Your task to perform on an android device: Search for sushi restaurants on Maps Image 0: 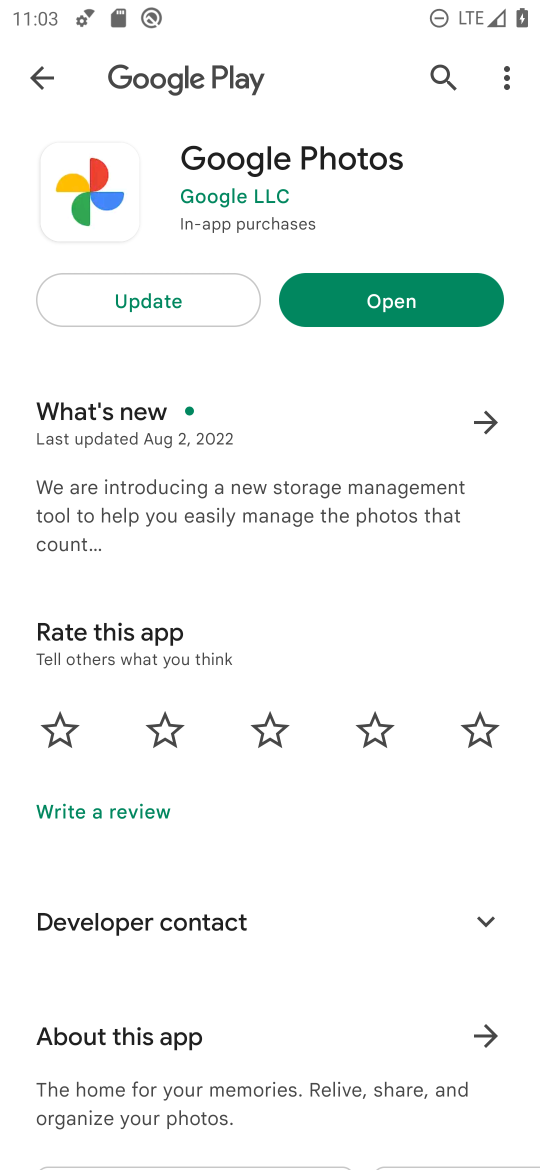
Step 0: press home button
Your task to perform on an android device: Search for sushi restaurants on Maps Image 1: 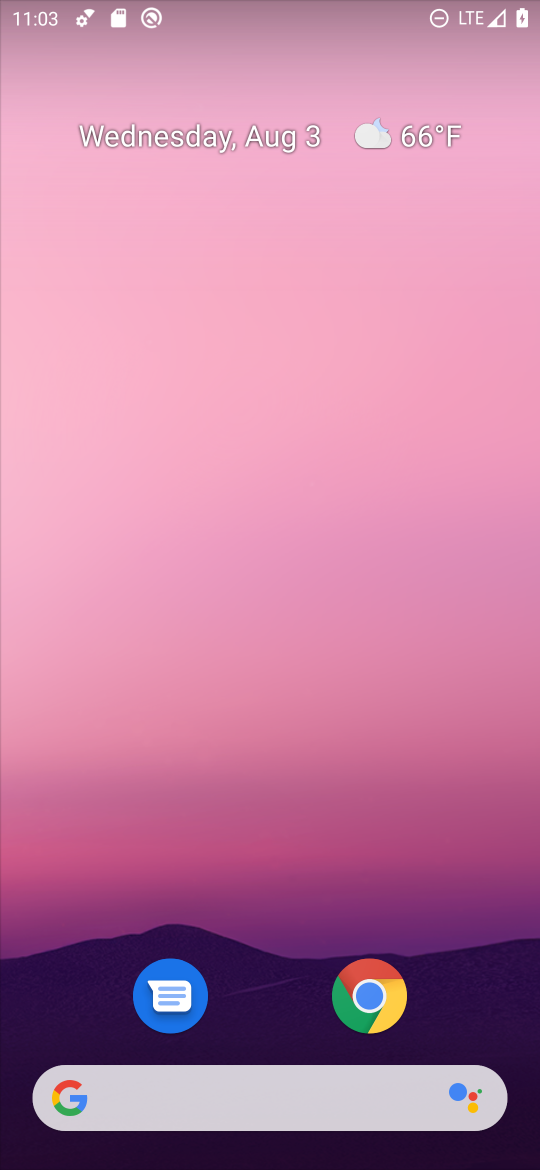
Step 1: drag from (282, 799) to (357, 6)
Your task to perform on an android device: Search for sushi restaurants on Maps Image 2: 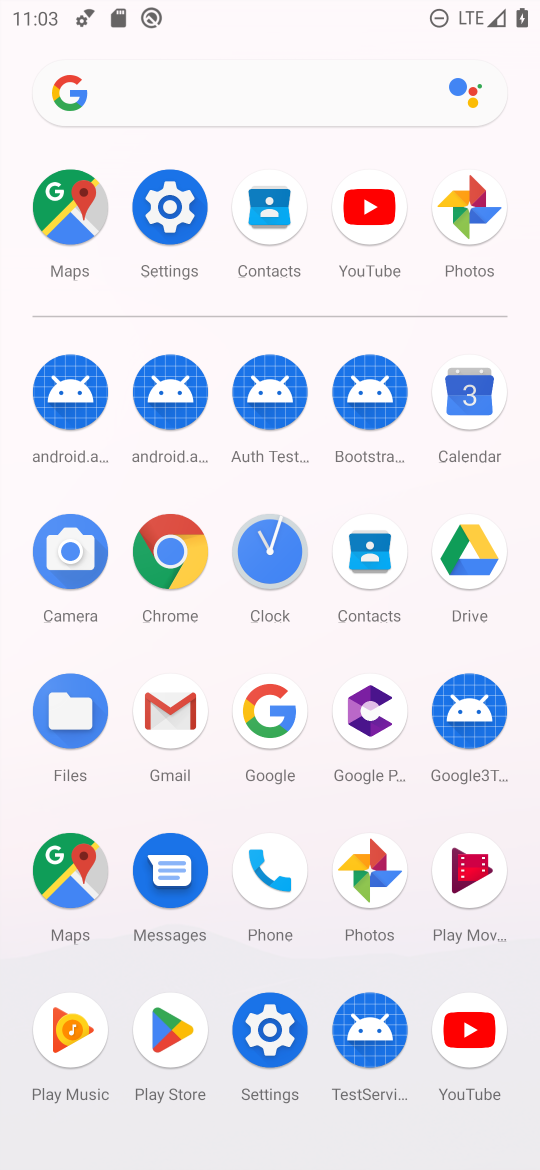
Step 2: click (68, 188)
Your task to perform on an android device: Search for sushi restaurants on Maps Image 3: 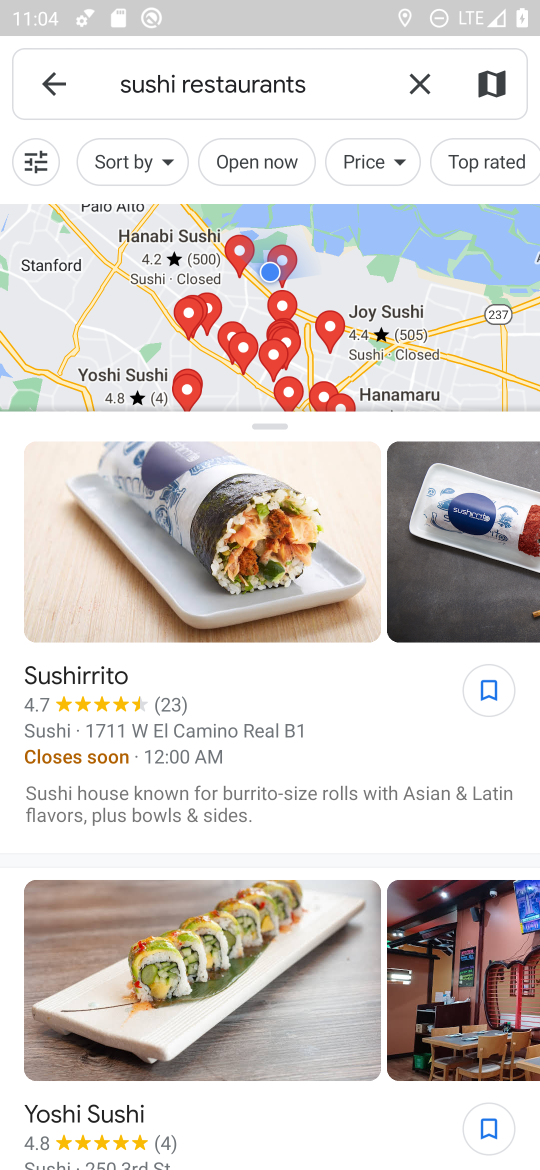
Step 3: task complete